Your task to perform on an android device: turn vacation reply on in the gmail app Image 0: 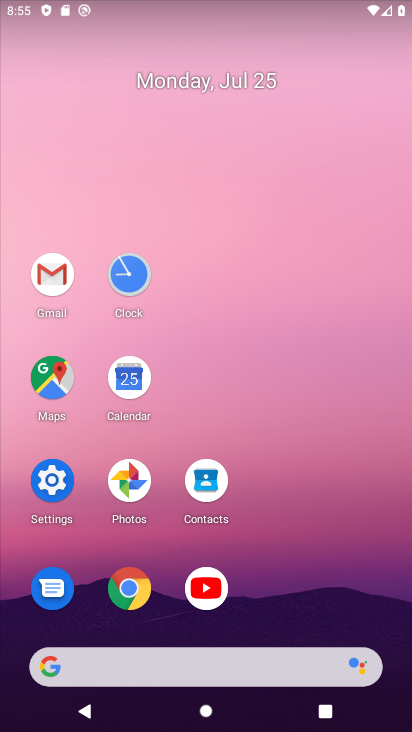
Step 0: click (51, 272)
Your task to perform on an android device: turn vacation reply on in the gmail app Image 1: 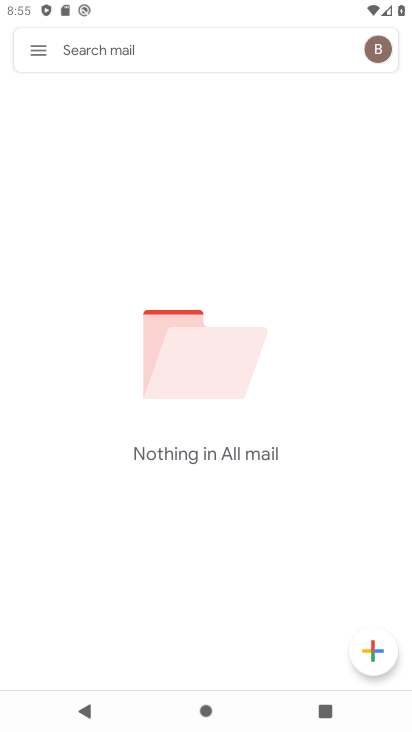
Step 1: click (33, 46)
Your task to perform on an android device: turn vacation reply on in the gmail app Image 2: 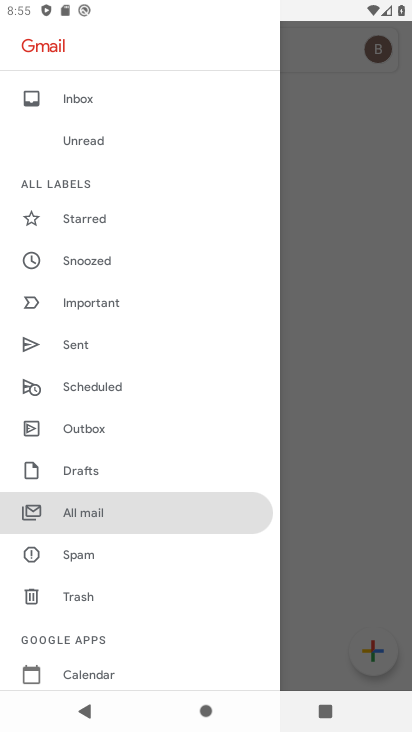
Step 2: drag from (160, 609) to (184, 288)
Your task to perform on an android device: turn vacation reply on in the gmail app Image 3: 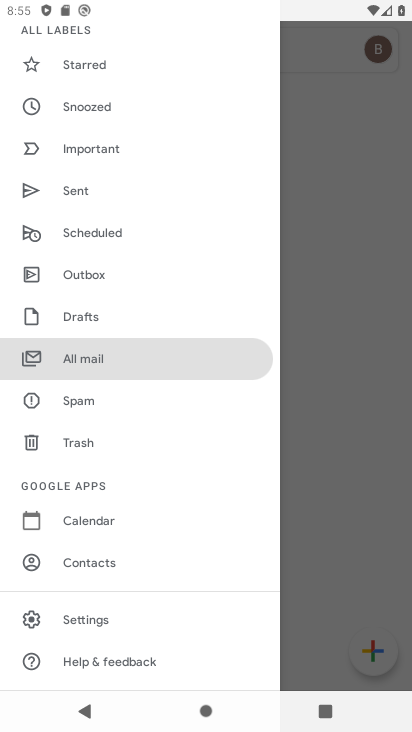
Step 3: click (82, 620)
Your task to perform on an android device: turn vacation reply on in the gmail app Image 4: 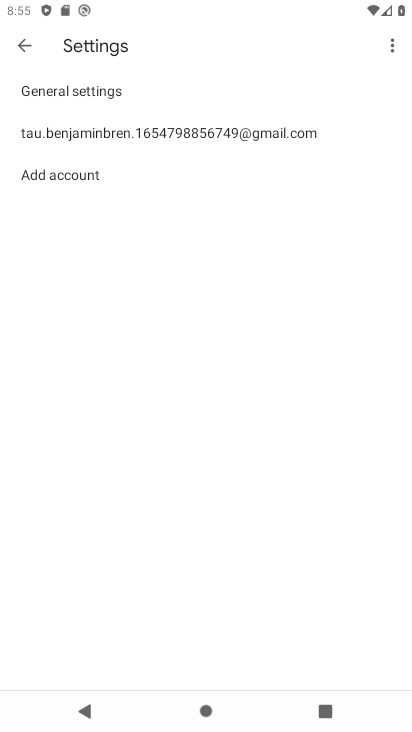
Step 4: click (81, 133)
Your task to perform on an android device: turn vacation reply on in the gmail app Image 5: 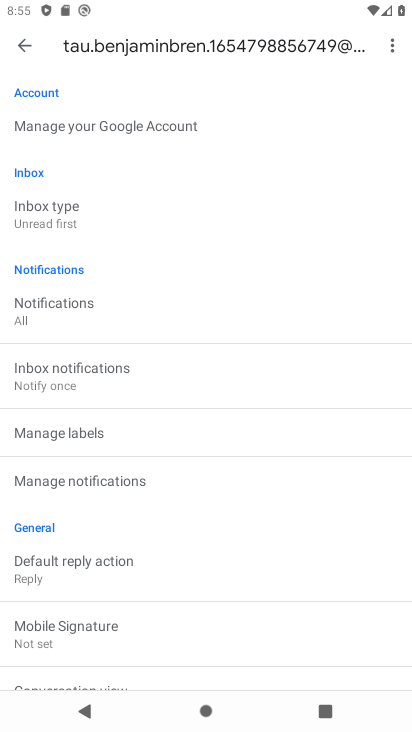
Step 5: drag from (187, 565) to (179, 184)
Your task to perform on an android device: turn vacation reply on in the gmail app Image 6: 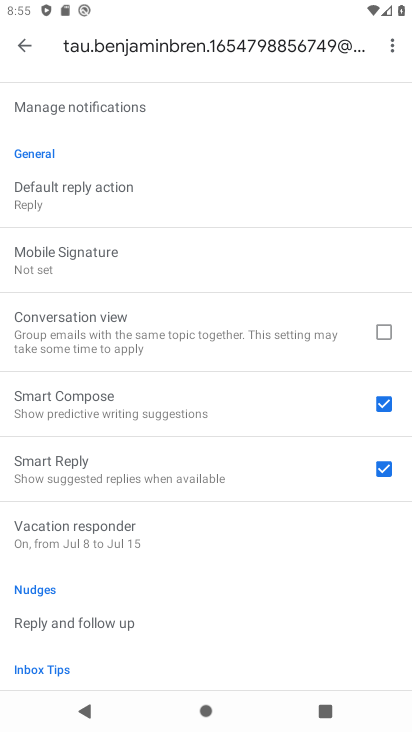
Step 6: click (71, 527)
Your task to perform on an android device: turn vacation reply on in the gmail app Image 7: 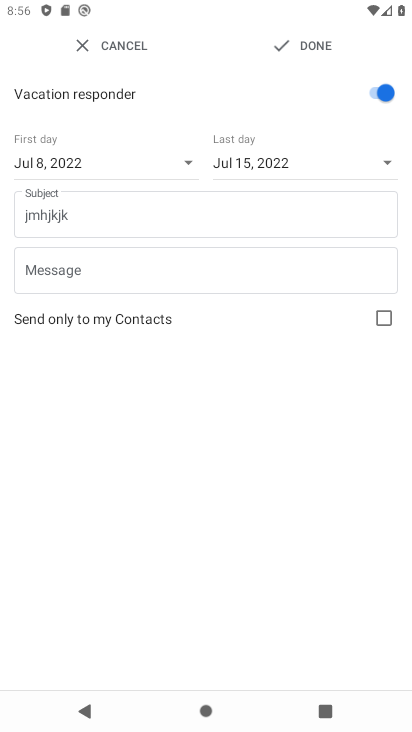
Step 7: task complete